Your task to perform on an android device: Open Google Image 0: 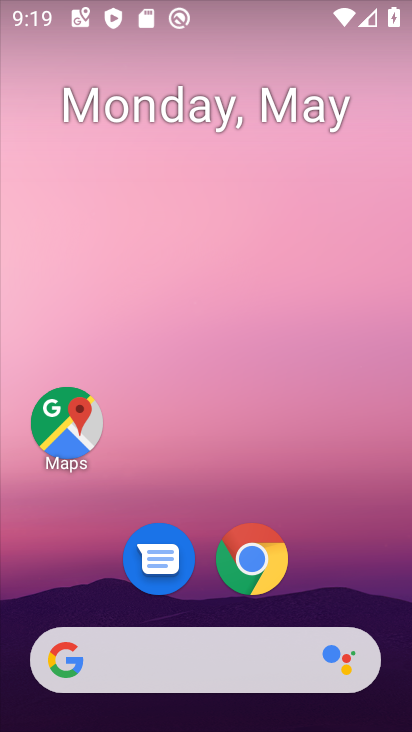
Step 0: click (108, 651)
Your task to perform on an android device: Open Google Image 1: 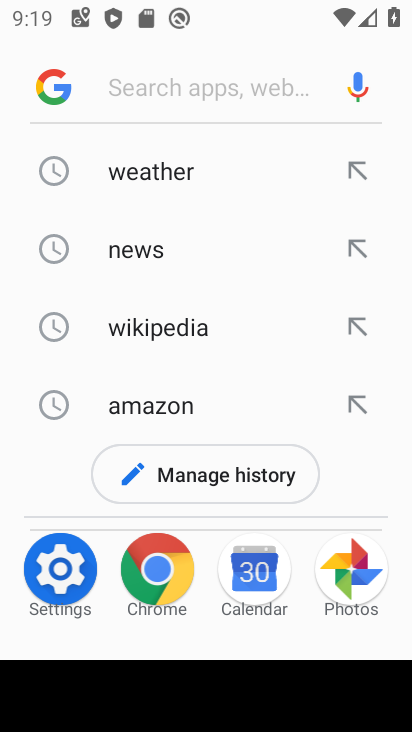
Step 1: click (43, 89)
Your task to perform on an android device: Open Google Image 2: 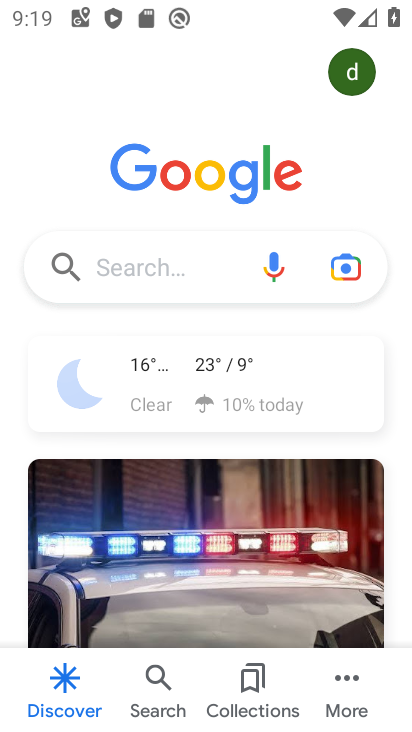
Step 2: task complete